Your task to perform on an android device: toggle priority inbox in the gmail app Image 0: 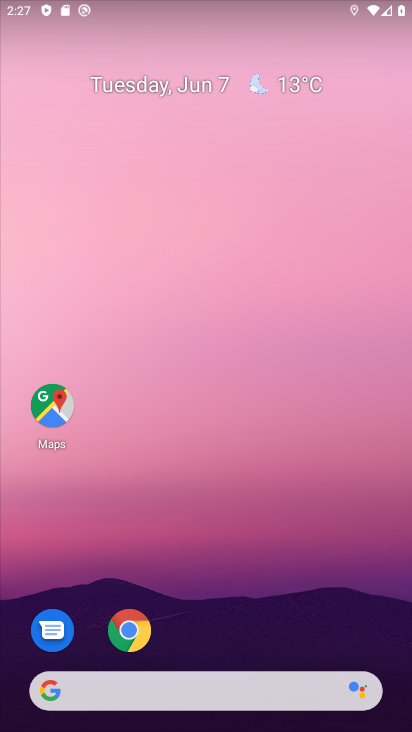
Step 0: drag from (241, 704) to (240, 48)
Your task to perform on an android device: toggle priority inbox in the gmail app Image 1: 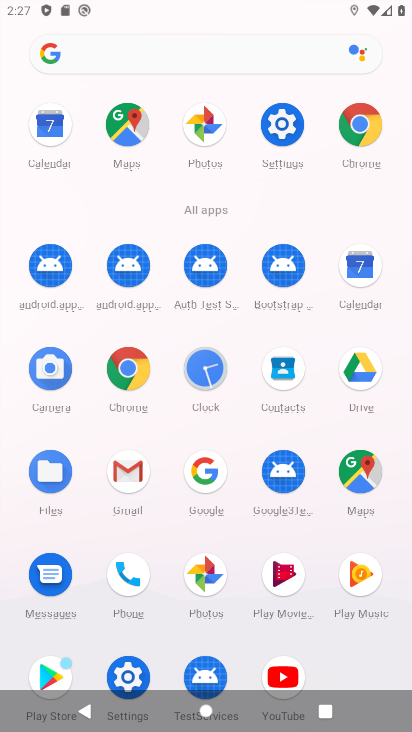
Step 1: click (130, 475)
Your task to perform on an android device: toggle priority inbox in the gmail app Image 2: 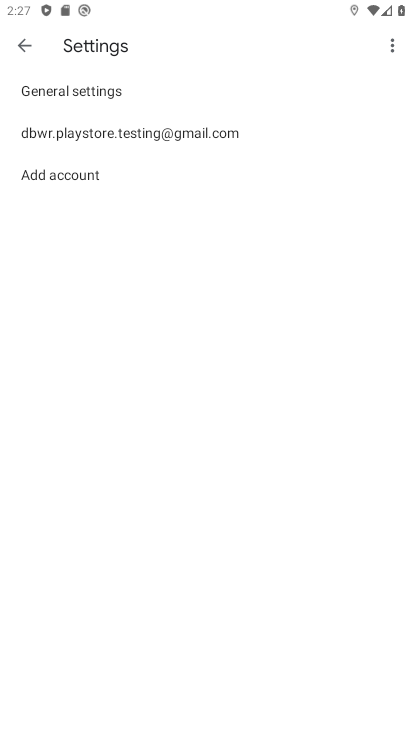
Step 2: click (98, 137)
Your task to perform on an android device: toggle priority inbox in the gmail app Image 3: 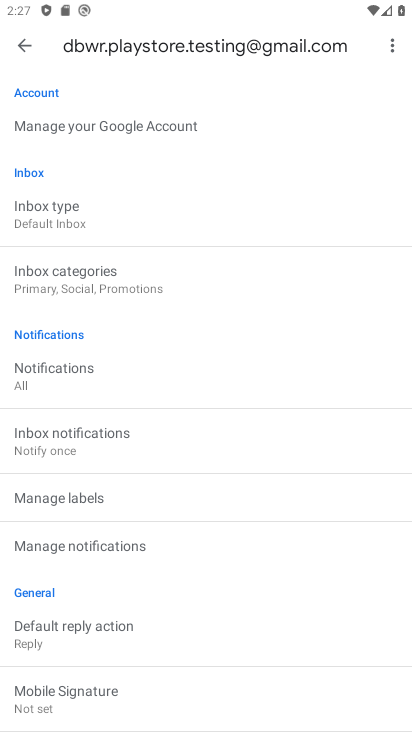
Step 3: drag from (109, 645) to (140, 249)
Your task to perform on an android device: toggle priority inbox in the gmail app Image 4: 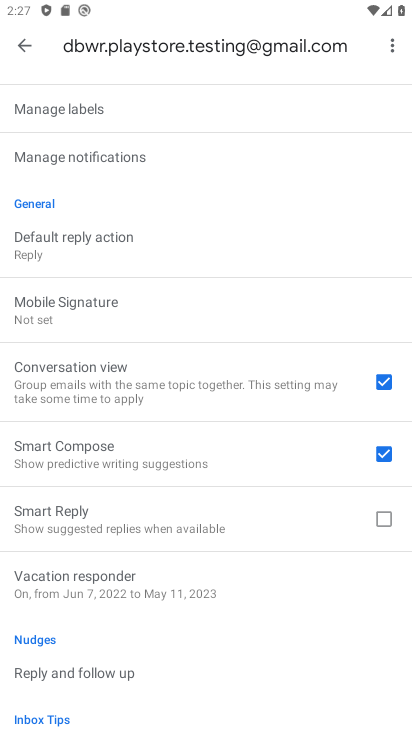
Step 4: drag from (124, 230) to (77, 724)
Your task to perform on an android device: toggle priority inbox in the gmail app Image 5: 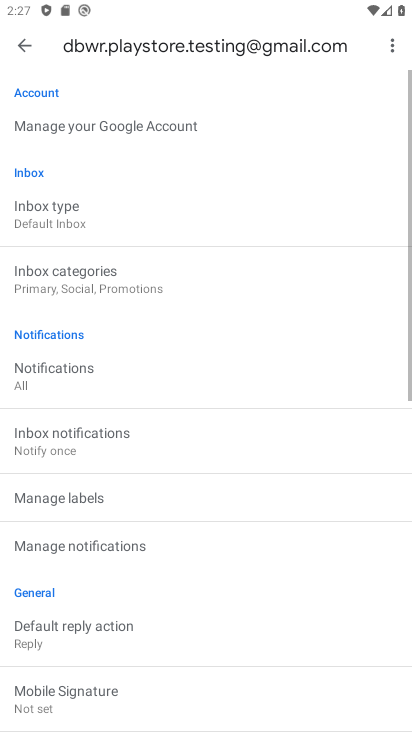
Step 5: click (67, 220)
Your task to perform on an android device: toggle priority inbox in the gmail app Image 6: 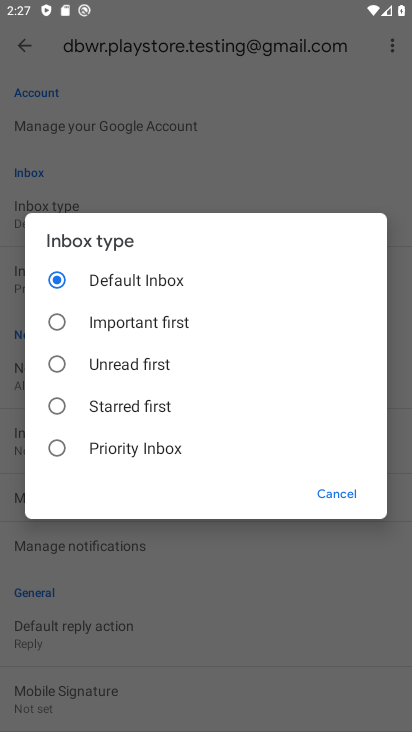
Step 6: click (140, 444)
Your task to perform on an android device: toggle priority inbox in the gmail app Image 7: 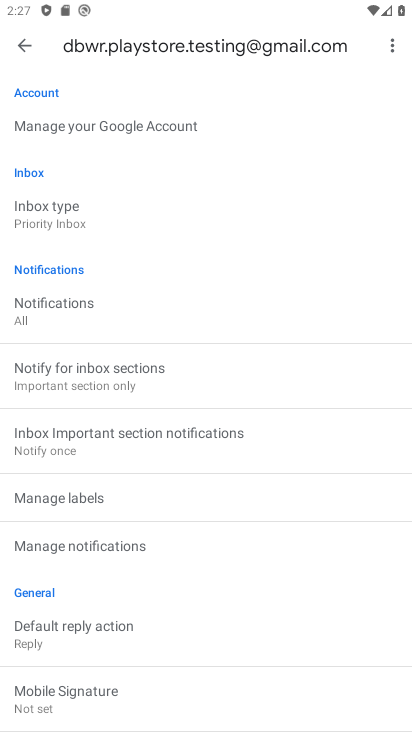
Step 7: task complete